Your task to perform on an android device: change keyboard looks Image 0: 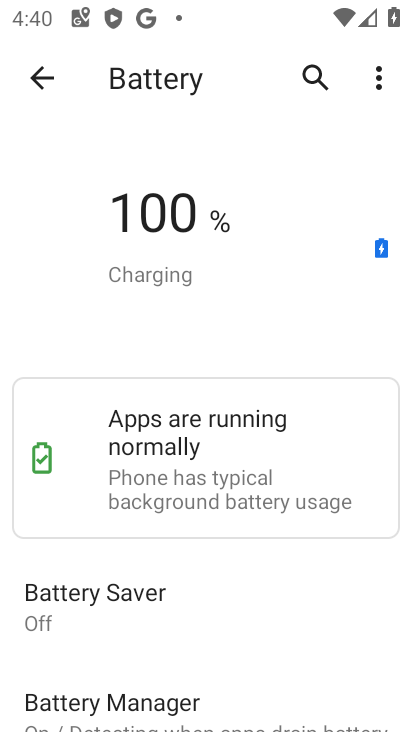
Step 0: press back button
Your task to perform on an android device: change keyboard looks Image 1: 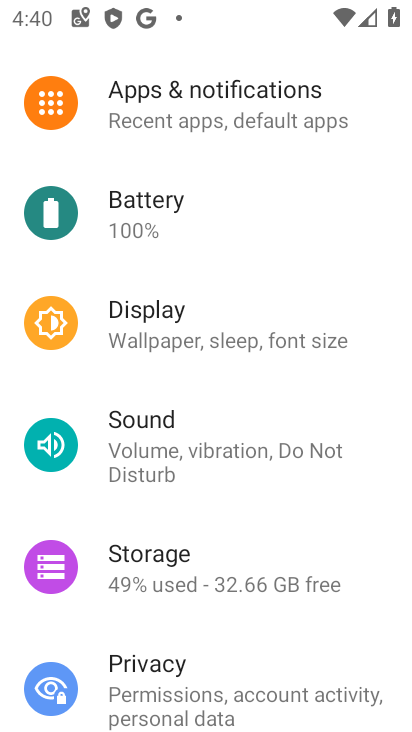
Step 1: drag from (173, 594) to (260, 37)
Your task to perform on an android device: change keyboard looks Image 2: 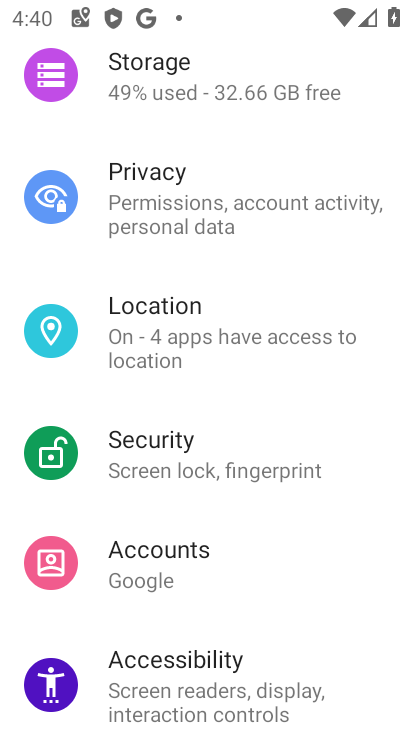
Step 2: drag from (182, 610) to (294, 142)
Your task to perform on an android device: change keyboard looks Image 3: 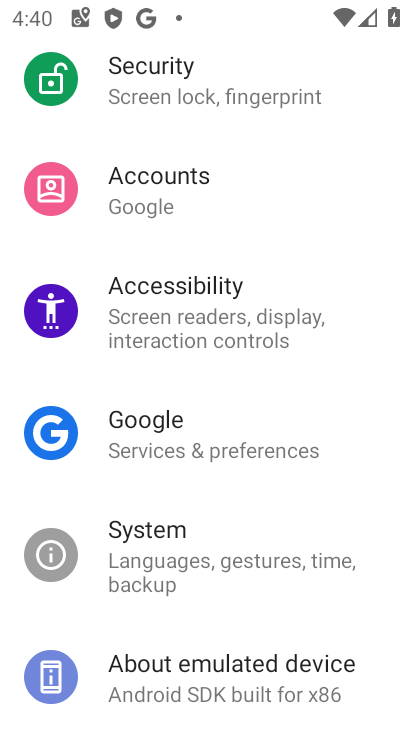
Step 3: click (181, 544)
Your task to perform on an android device: change keyboard looks Image 4: 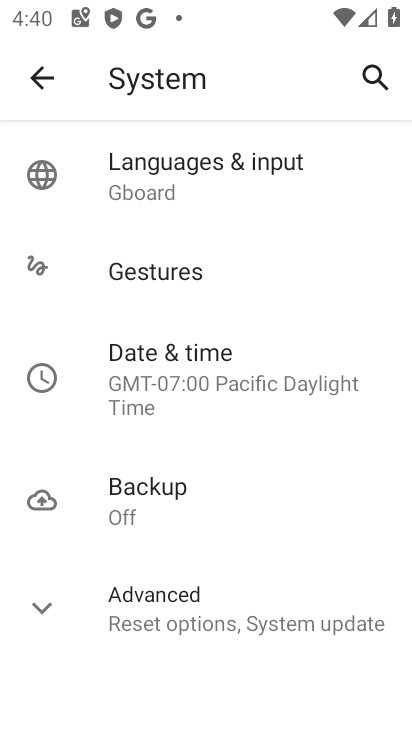
Step 4: click (184, 181)
Your task to perform on an android device: change keyboard looks Image 5: 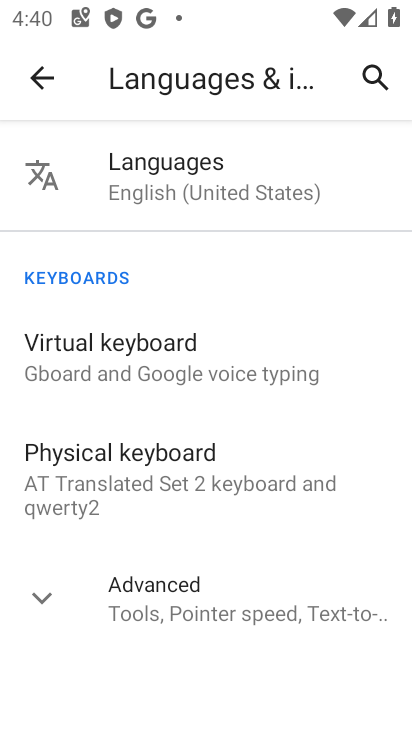
Step 5: click (148, 346)
Your task to perform on an android device: change keyboard looks Image 6: 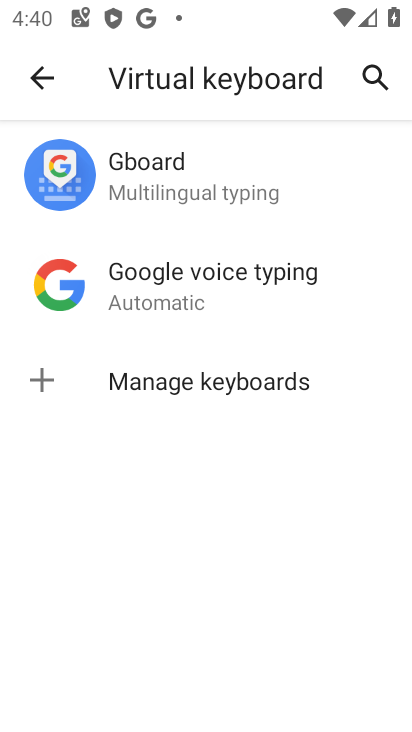
Step 6: click (129, 168)
Your task to perform on an android device: change keyboard looks Image 7: 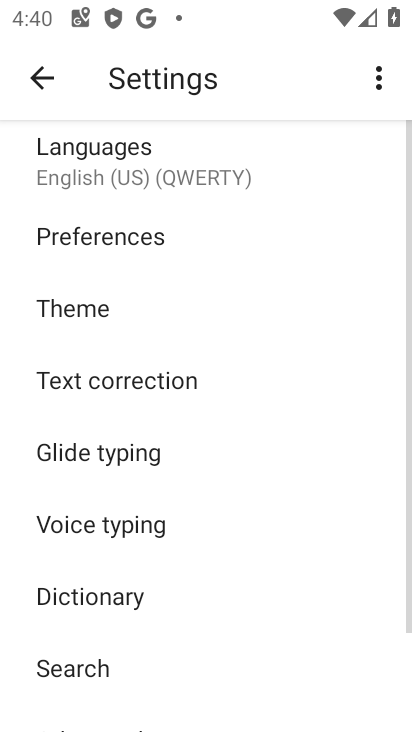
Step 7: click (89, 329)
Your task to perform on an android device: change keyboard looks Image 8: 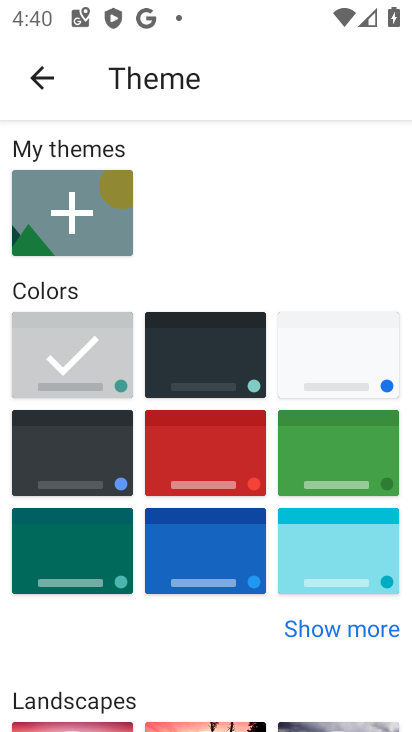
Step 8: click (382, 475)
Your task to perform on an android device: change keyboard looks Image 9: 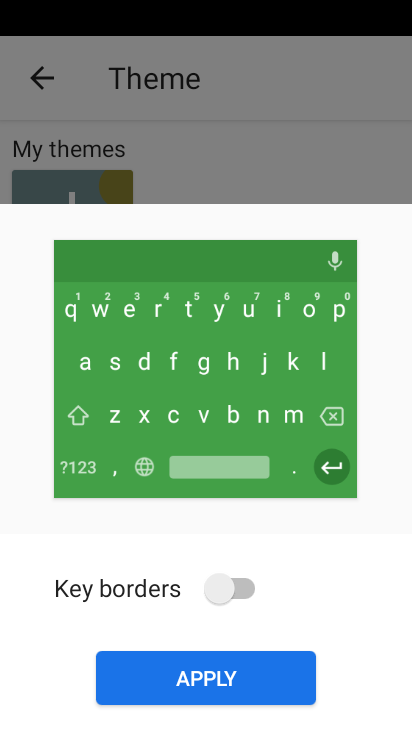
Step 9: click (190, 683)
Your task to perform on an android device: change keyboard looks Image 10: 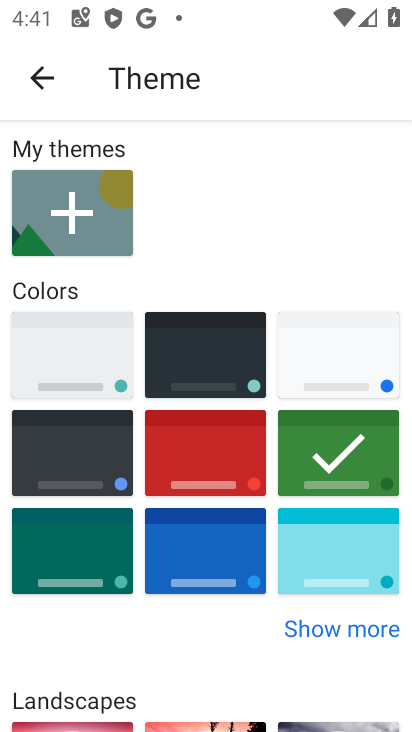
Step 10: task complete